Your task to perform on an android device: set an alarm Image 0: 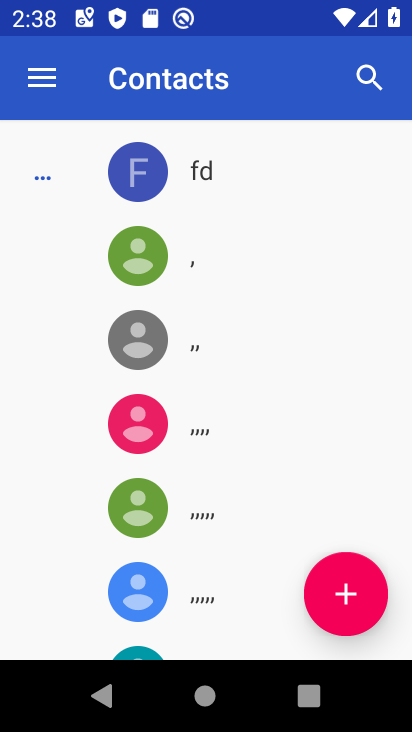
Step 0: press home button
Your task to perform on an android device: set an alarm Image 1: 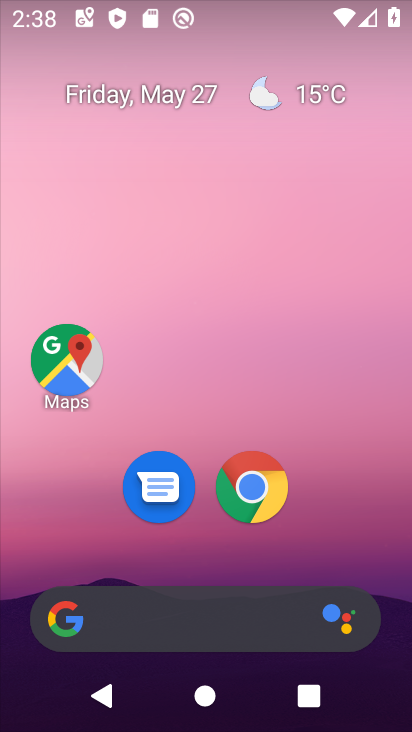
Step 1: drag from (205, 545) to (264, 30)
Your task to perform on an android device: set an alarm Image 2: 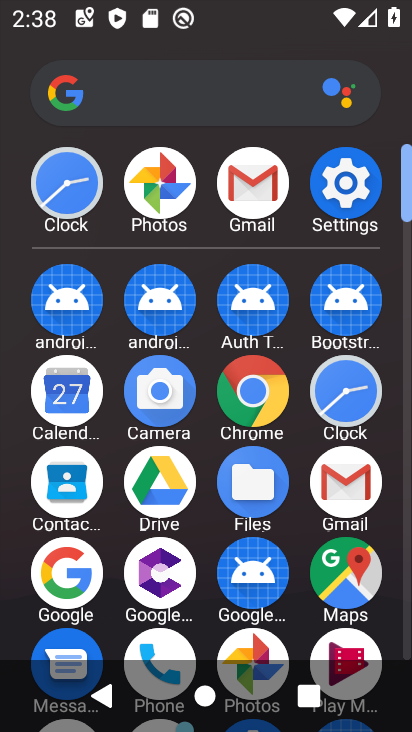
Step 2: click (51, 191)
Your task to perform on an android device: set an alarm Image 3: 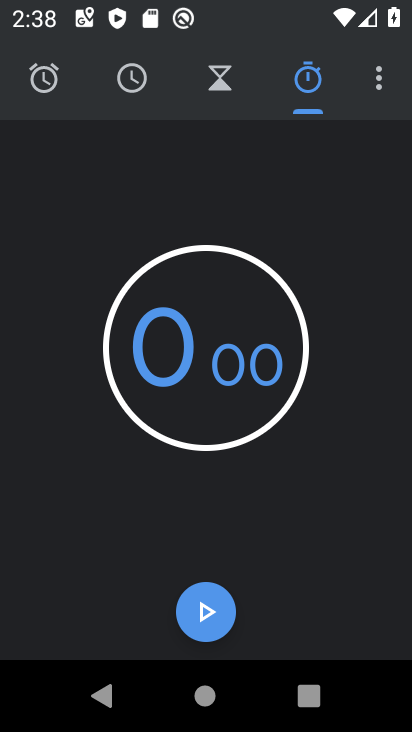
Step 3: click (20, 90)
Your task to perform on an android device: set an alarm Image 4: 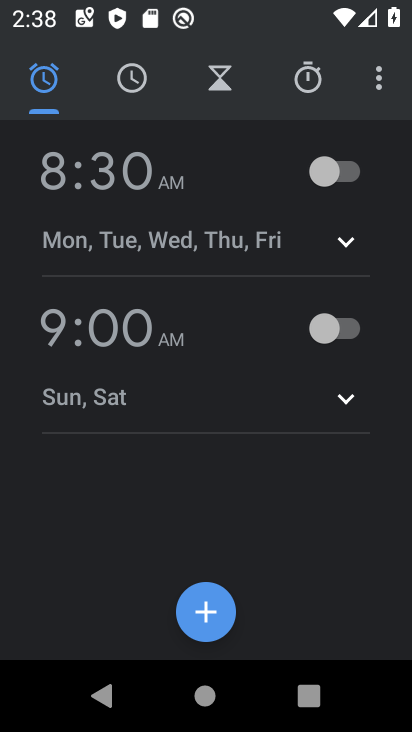
Step 4: click (346, 163)
Your task to perform on an android device: set an alarm Image 5: 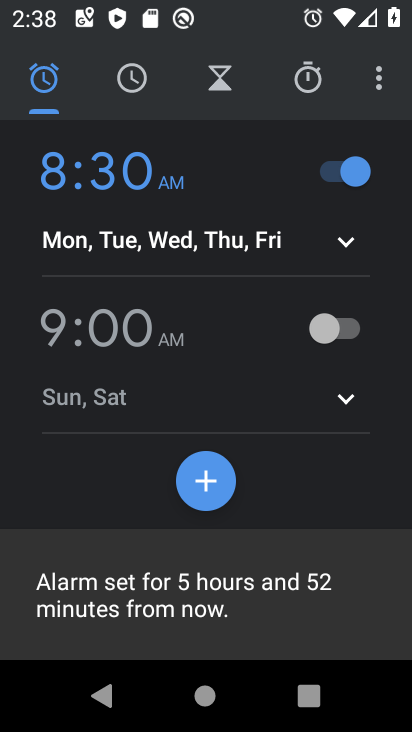
Step 5: task complete